Your task to perform on an android device: open device folders in google photos Image 0: 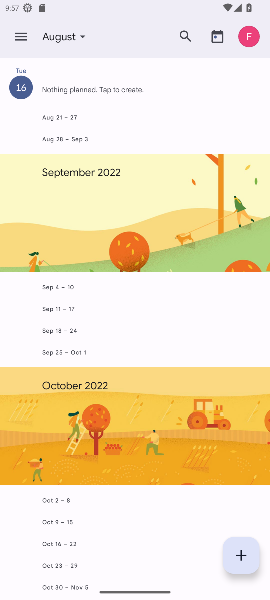
Step 0: press home button
Your task to perform on an android device: open device folders in google photos Image 1: 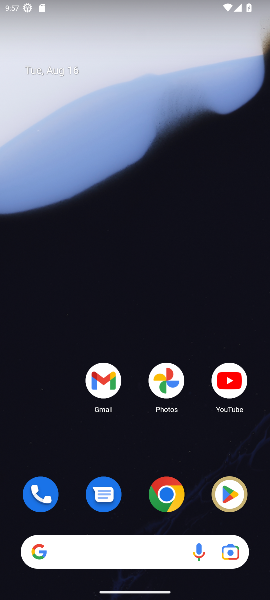
Step 1: drag from (140, 512) to (161, 28)
Your task to perform on an android device: open device folders in google photos Image 2: 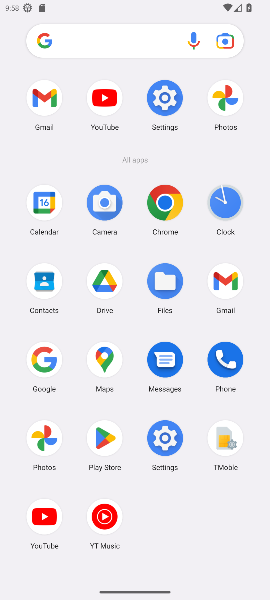
Step 2: click (226, 95)
Your task to perform on an android device: open device folders in google photos Image 3: 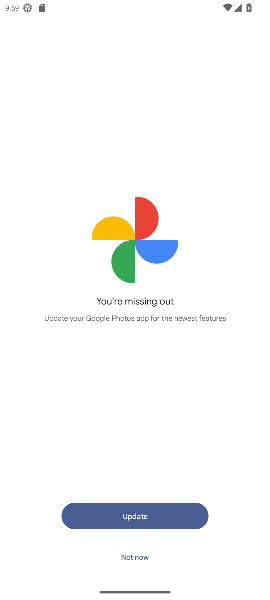
Step 3: press home button
Your task to perform on an android device: open device folders in google photos Image 4: 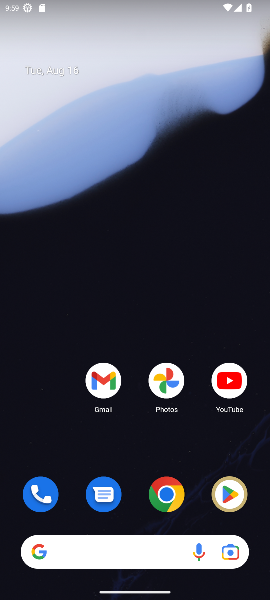
Step 4: drag from (203, 516) to (198, 74)
Your task to perform on an android device: open device folders in google photos Image 5: 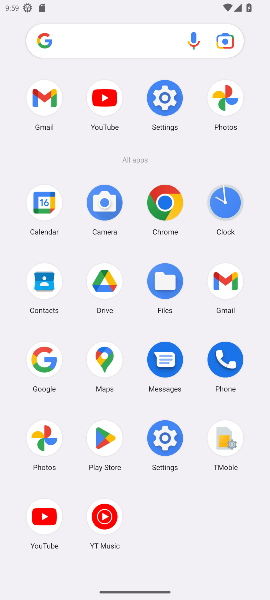
Step 5: click (215, 95)
Your task to perform on an android device: open device folders in google photos Image 6: 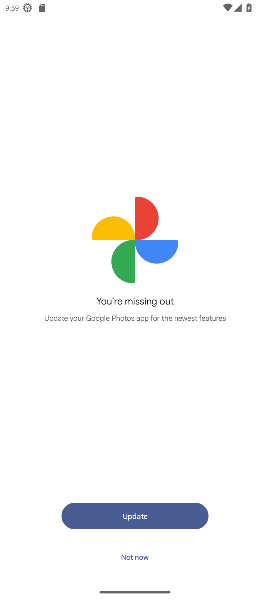
Step 6: click (144, 506)
Your task to perform on an android device: open device folders in google photos Image 7: 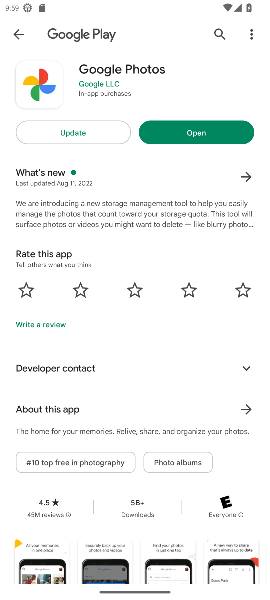
Step 7: click (70, 132)
Your task to perform on an android device: open device folders in google photos Image 8: 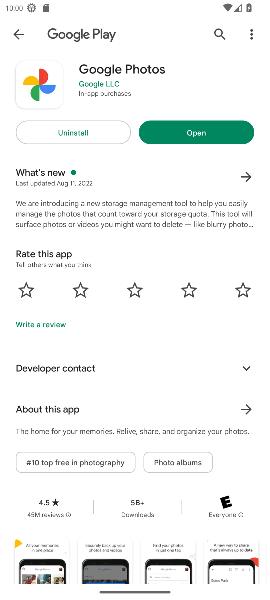
Step 8: click (237, 129)
Your task to perform on an android device: open device folders in google photos Image 9: 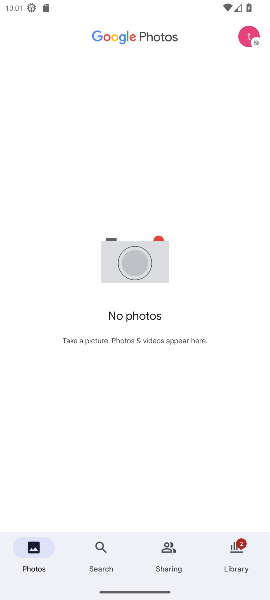
Step 9: click (242, 40)
Your task to perform on an android device: open device folders in google photos Image 10: 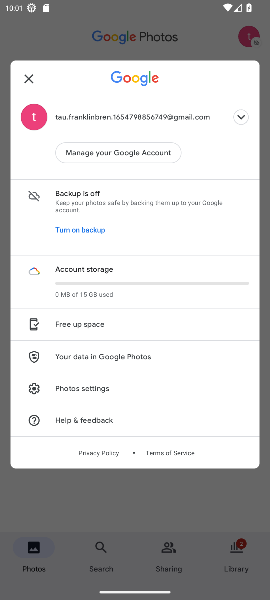
Step 10: click (93, 388)
Your task to perform on an android device: open device folders in google photos Image 11: 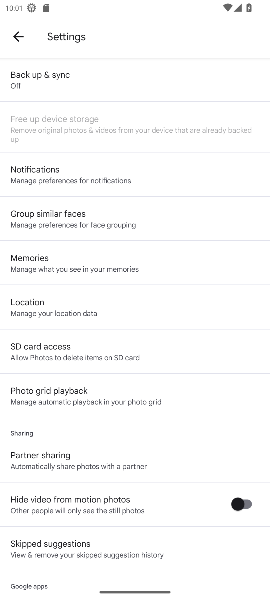
Step 11: task complete